Your task to perform on an android device: open device folders in google photos Image 0: 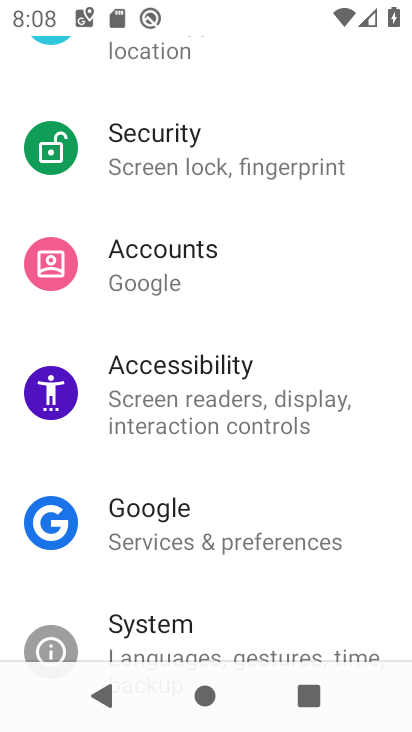
Step 0: press home button
Your task to perform on an android device: open device folders in google photos Image 1: 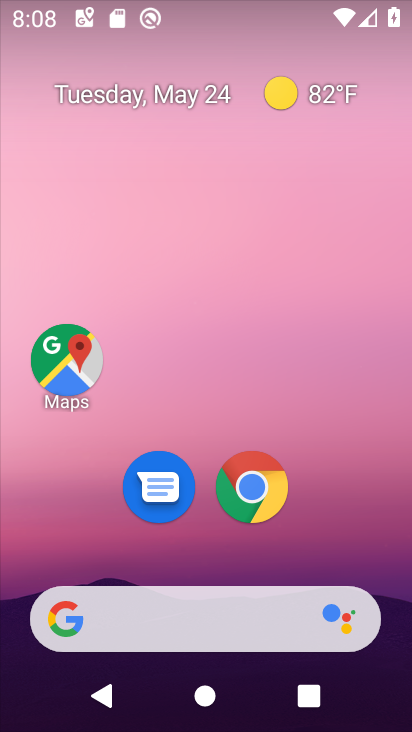
Step 1: drag from (332, 516) to (298, 90)
Your task to perform on an android device: open device folders in google photos Image 2: 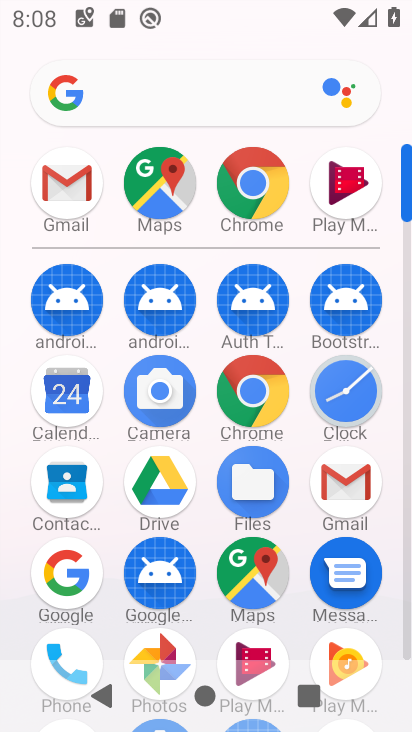
Step 2: drag from (206, 596) to (186, 303)
Your task to perform on an android device: open device folders in google photos Image 3: 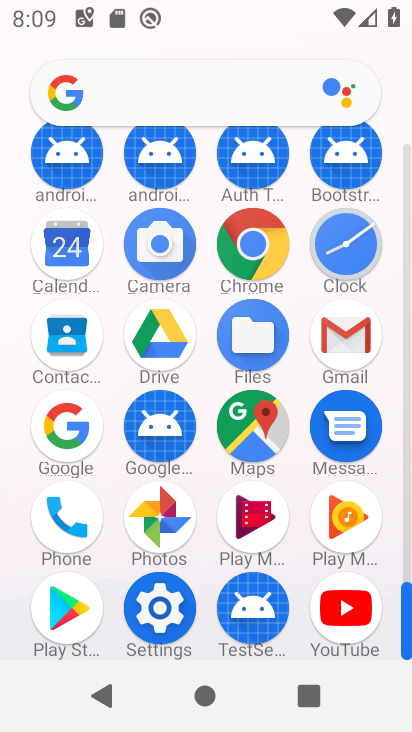
Step 3: click (181, 536)
Your task to perform on an android device: open device folders in google photos Image 4: 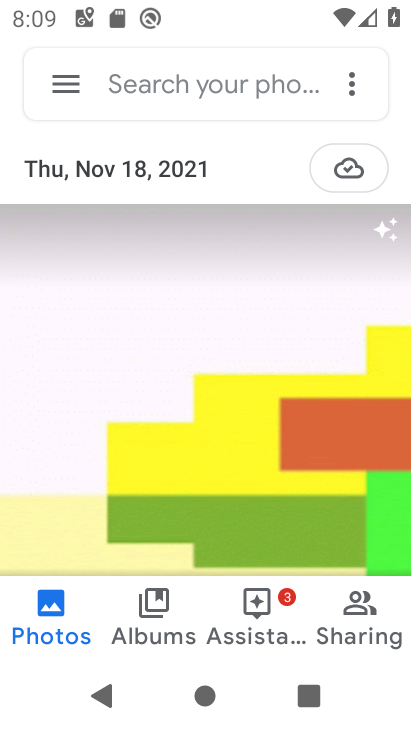
Step 4: click (59, 83)
Your task to perform on an android device: open device folders in google photos Image 5: 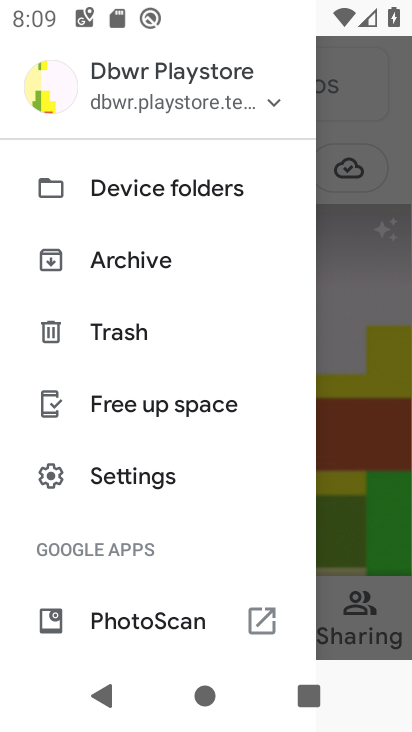
Step 5: click (111, 187)
Your task to perform on an android device: open device folders in google photos Image 6: 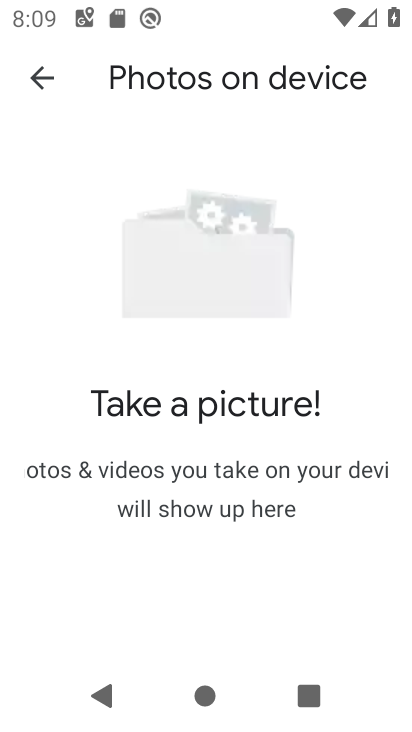
Step 6: task complete